Your task to perform on an android device: toggle priority inbox in the gmail app Image 0: 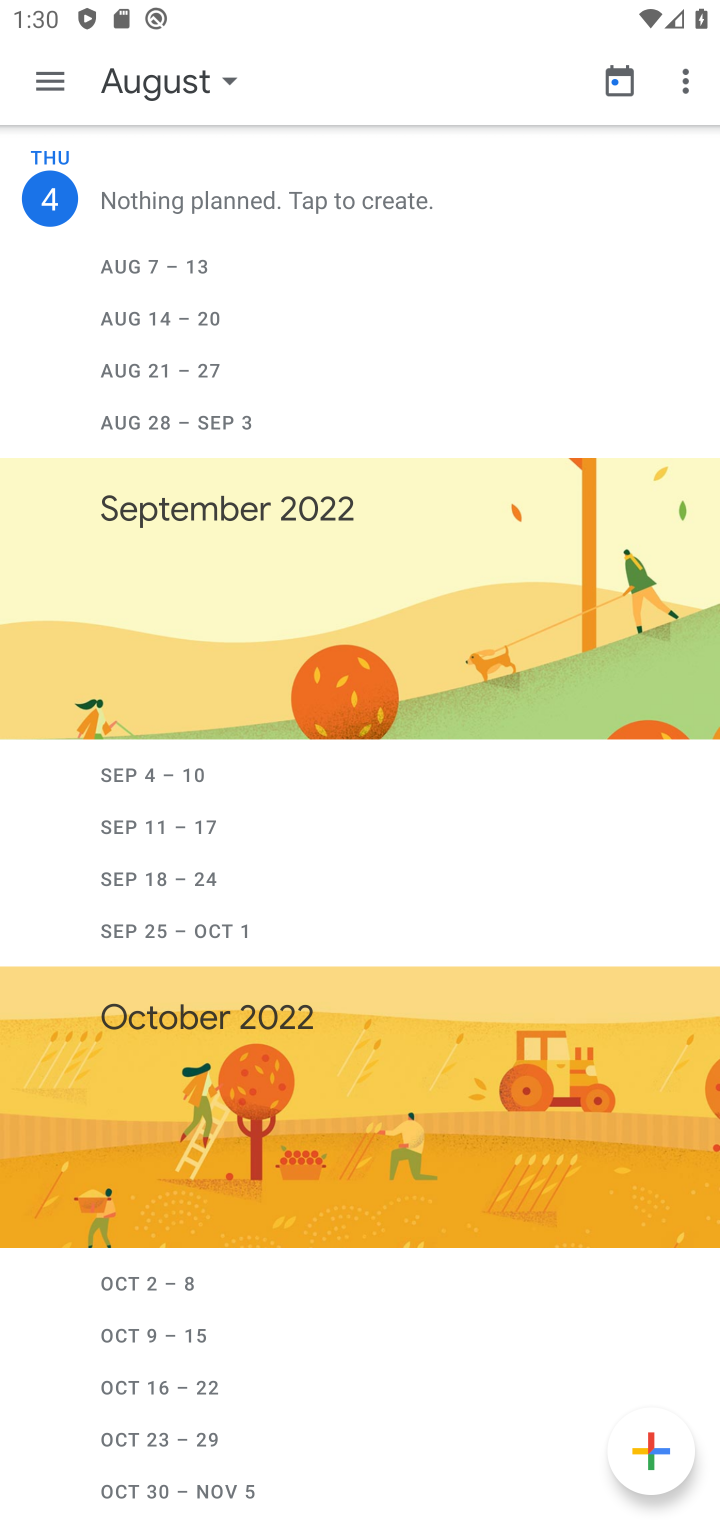
Step 0: press home button
Your task to perform on an android device: toggle priority inbox in the gmail app Image 1: 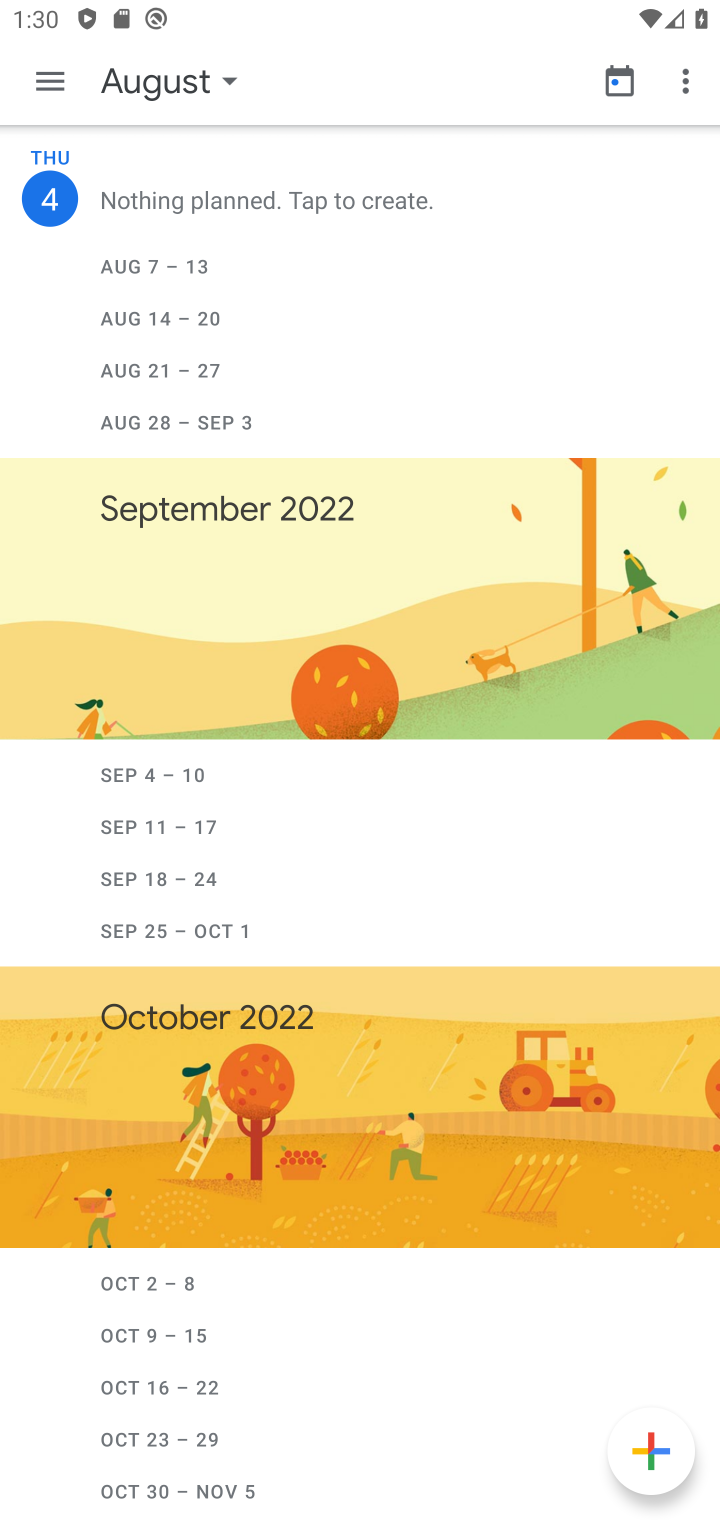
Step 1: click (336, 883)
Your task to perform on an android device: toggle priority inbox in the gmail app Image 2: 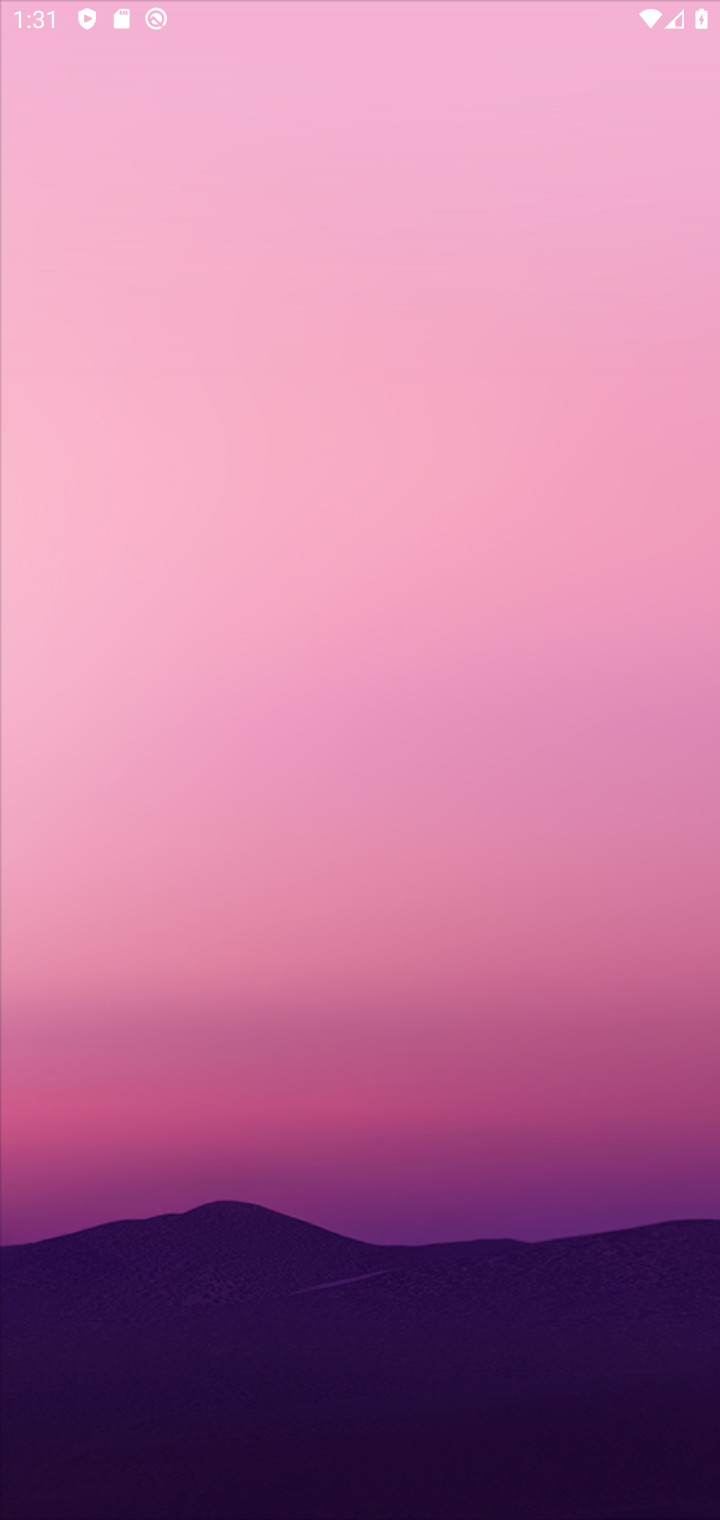
Step 2: press home button
Your task to perform on an android device: toggle priority inbox in the gmail app Image 3: 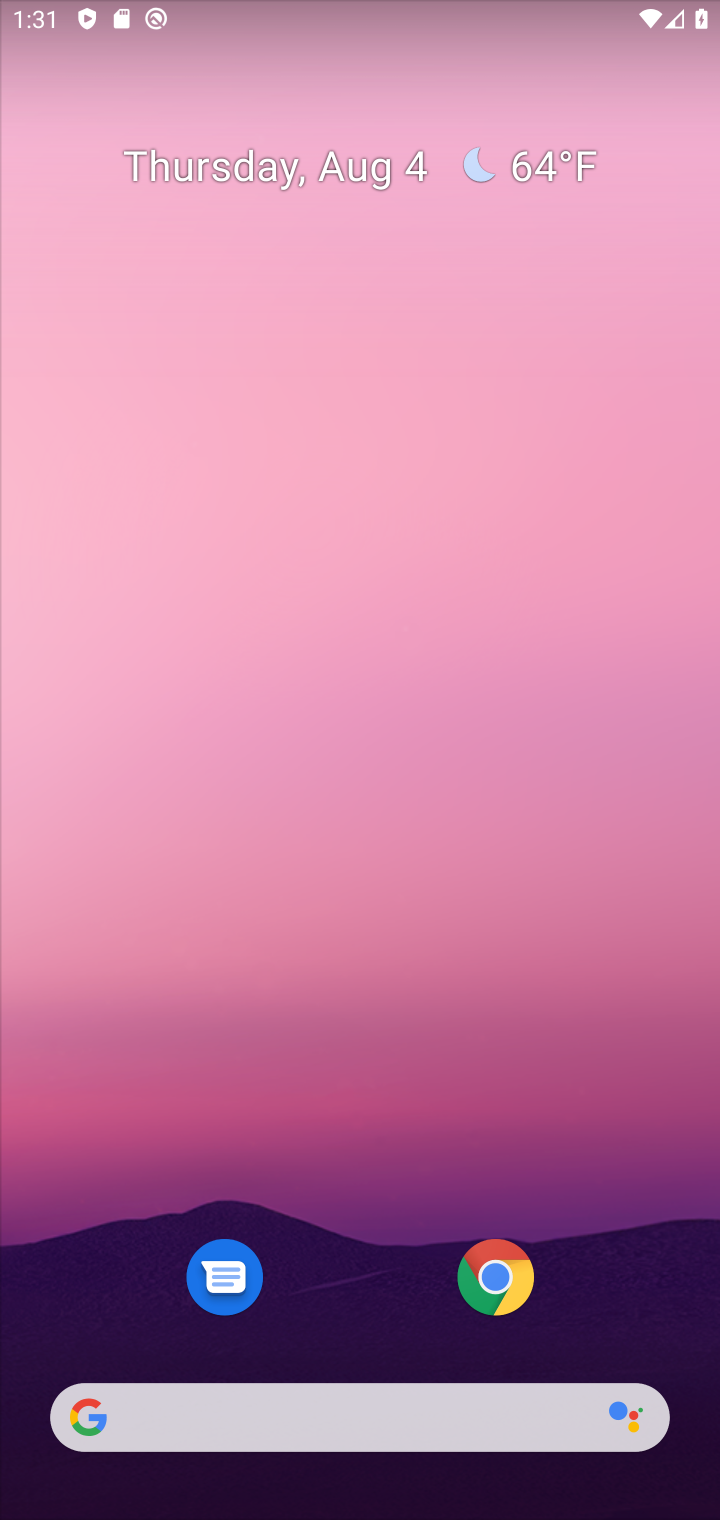
Step 3: drag from (382, 1207) to (451, 373)
Your task to perform on an android device: toggle priority inbox in the gmail app Image 4: 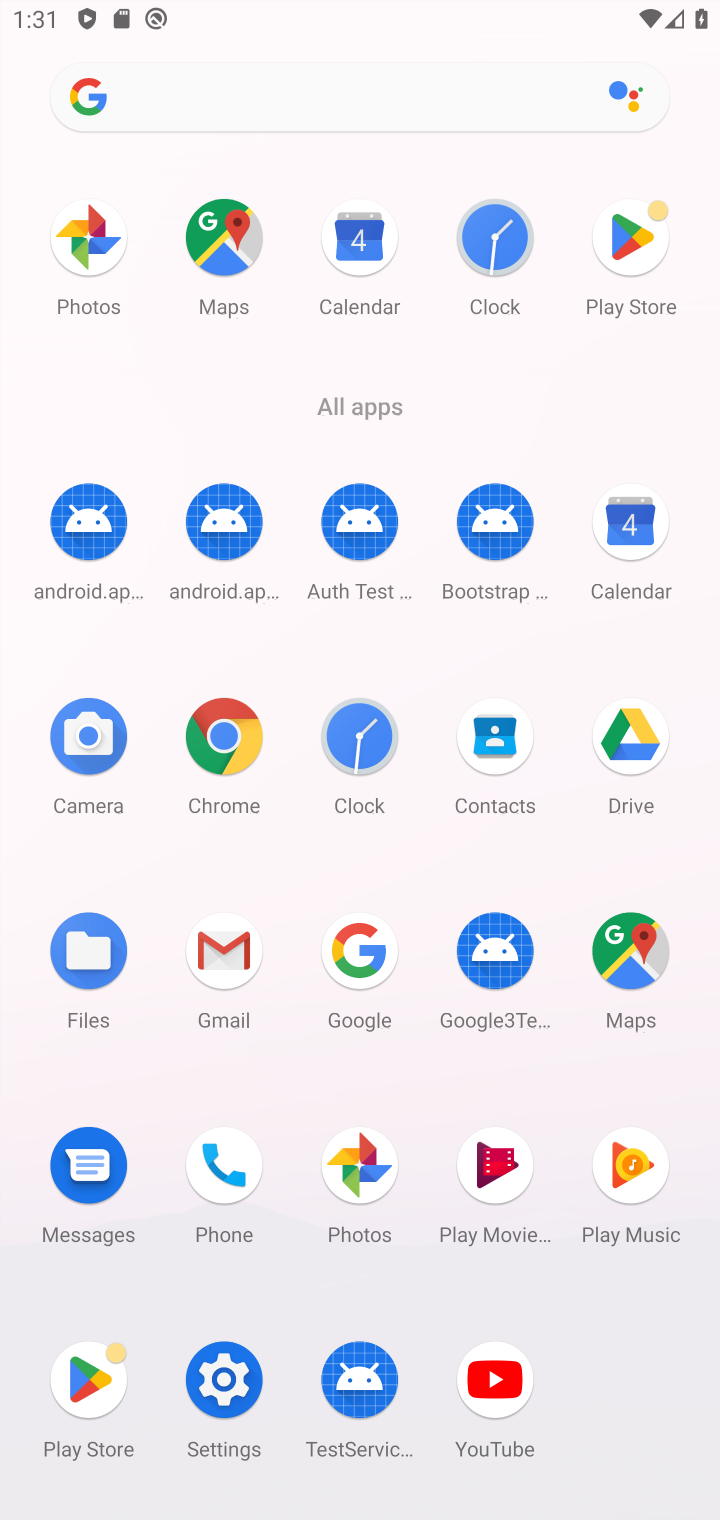
Step 4: click (196, 954)
Your task to perform on an android device: toggle priority inbox in the gmail app Image 5: 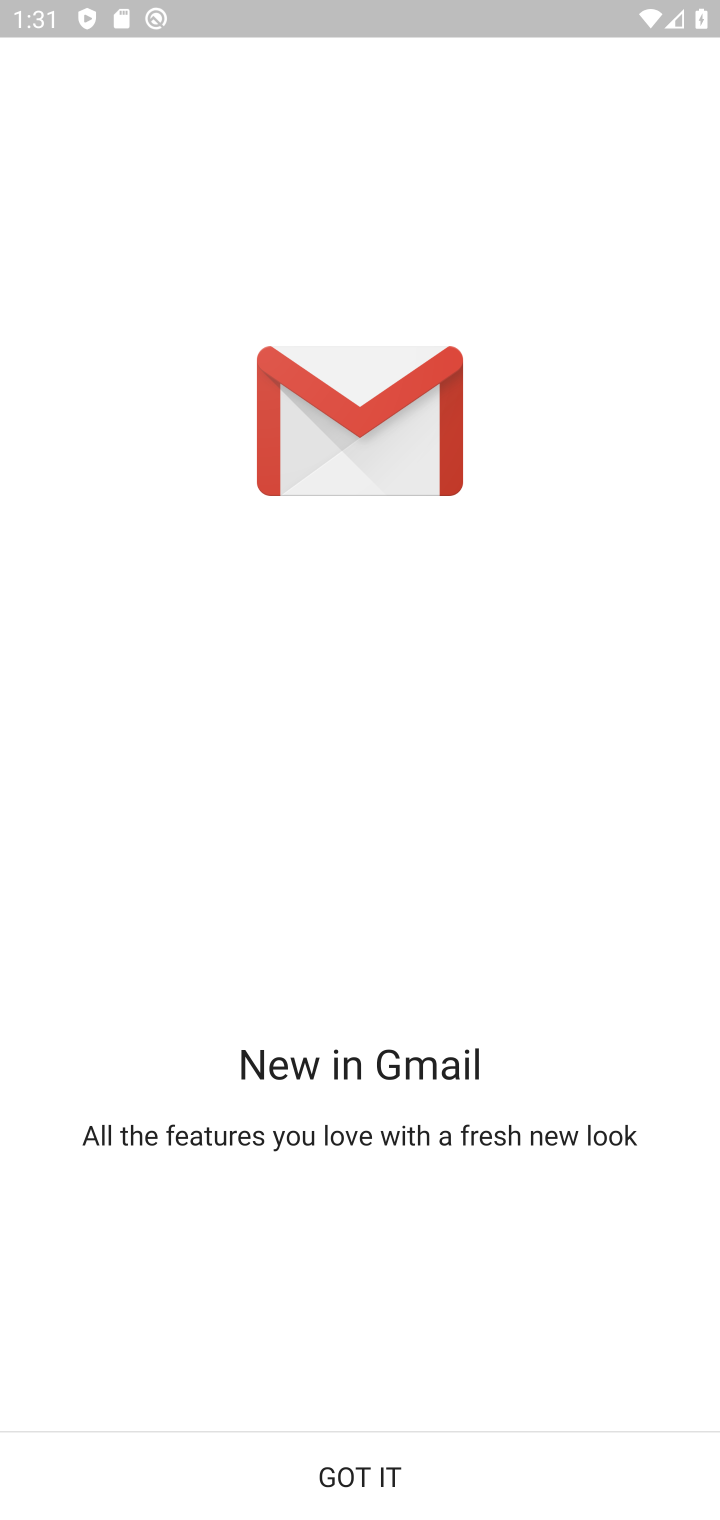
Step 5: click (272, 1477)
Your task to perform on an android device: toggle priority inbox in the gmail app Image 6: 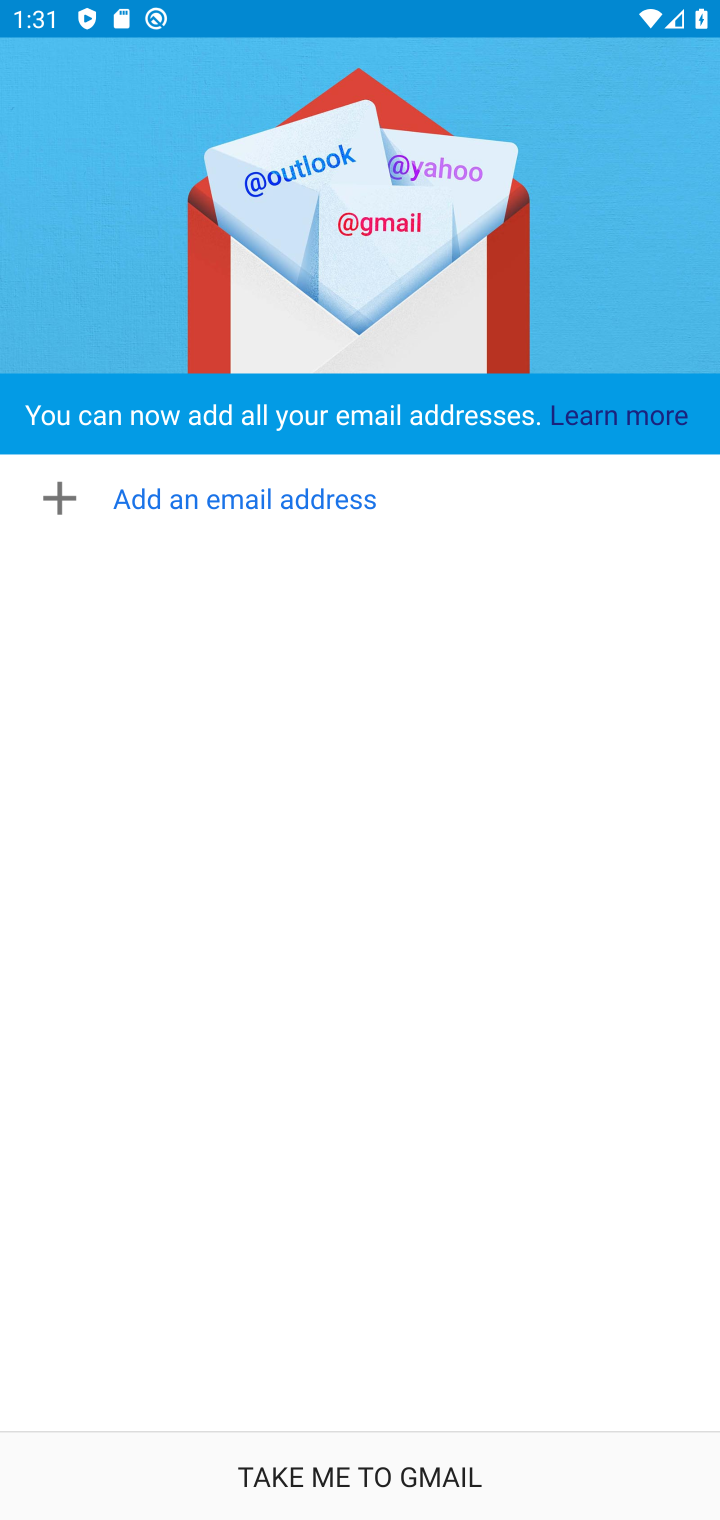
Step 6: click (293, 1473)
Your task to perform on an android device: toggle priority inbox in the gmail app Image 7: 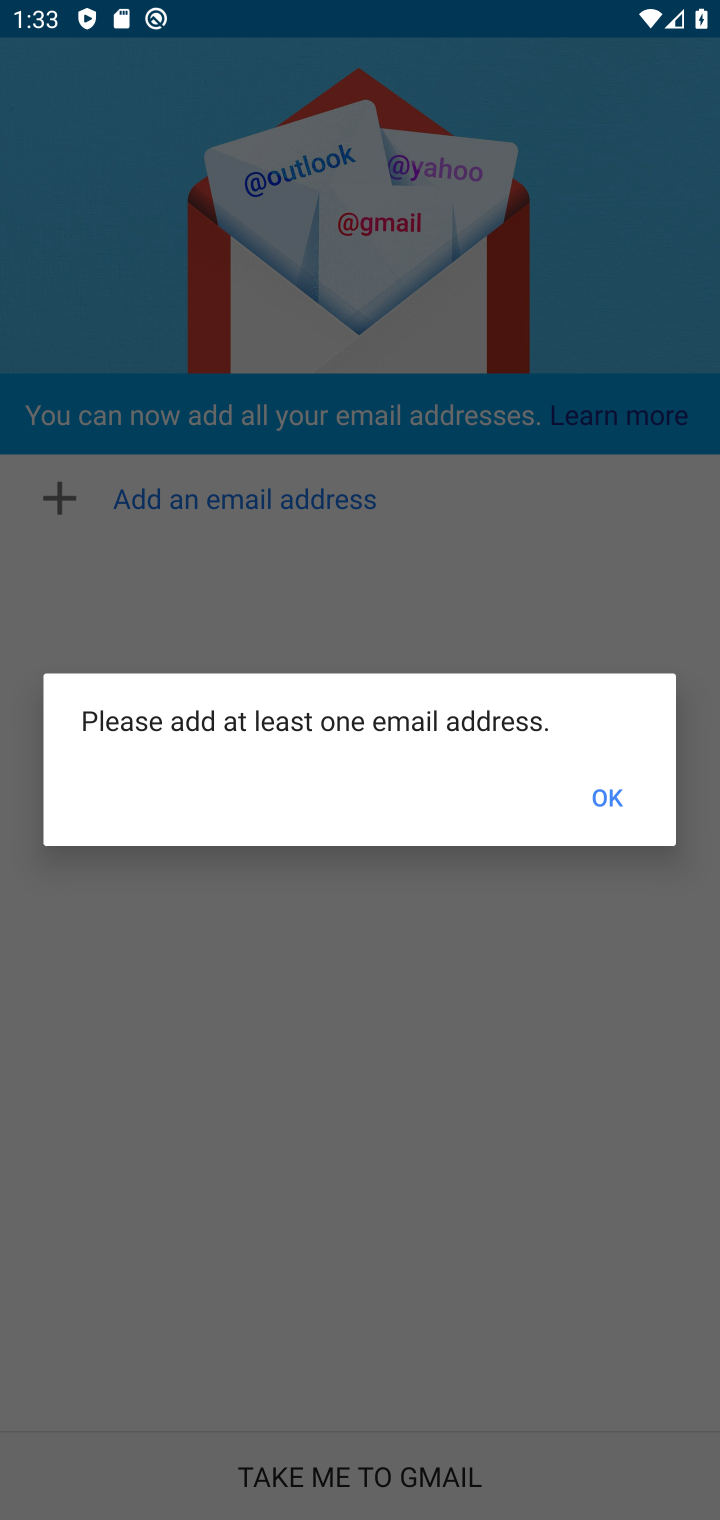
Step 7: task complete